Your task to perform on an android device: set the stopwatch Image 0: 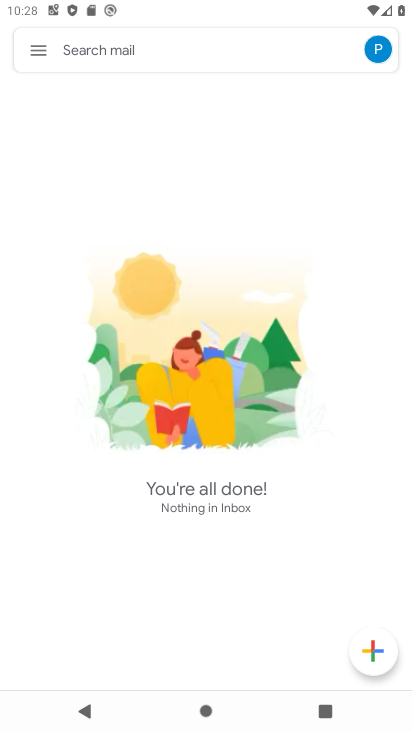
Step 0: press home button
Your task to perform on an android device: set the stopwatch Image 1: 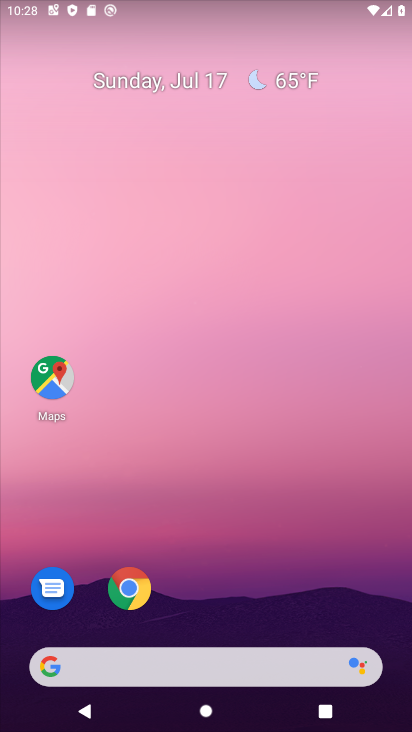
Step 1: drag from (244, 576) to (173, 50)
Your task to perform on an android device: set the stopwatch Image 2: 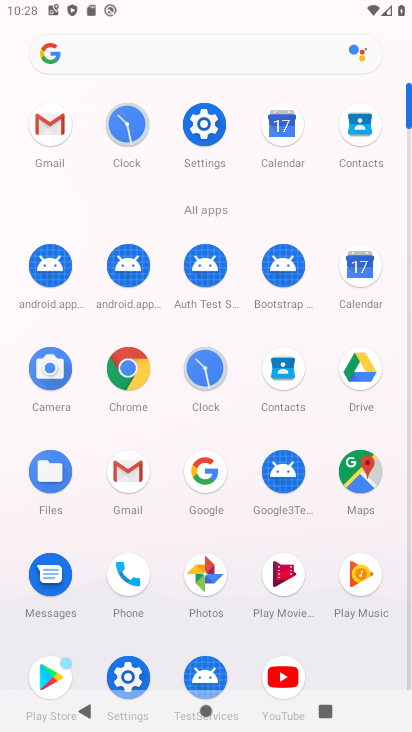
Step 2: click (129, 125)
Your task to perform on an android device: set the stopwatch Image 3: 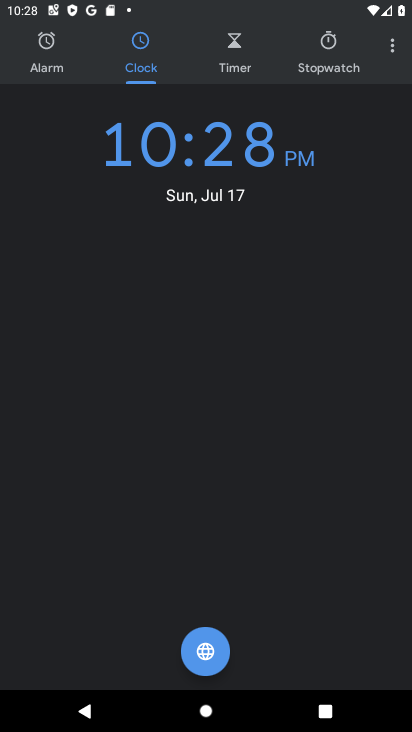
Step 3: click (322, 39)
Your task to perform on an android device: set the stopwatch Image 4: 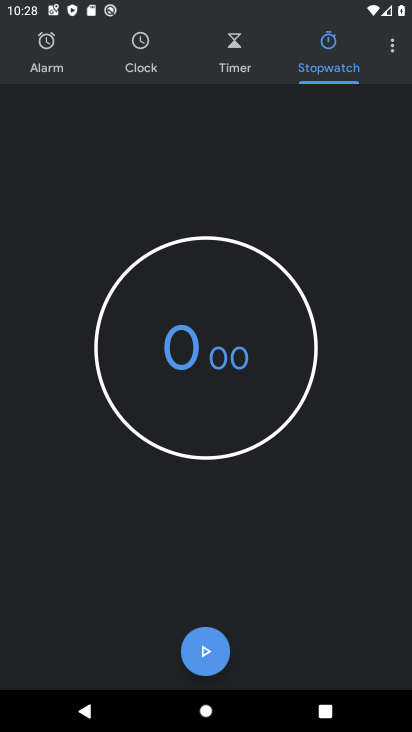
Step 4: task complete